Your task to perform on an android device: Search for Mexican restaurants on Maps Image 0: 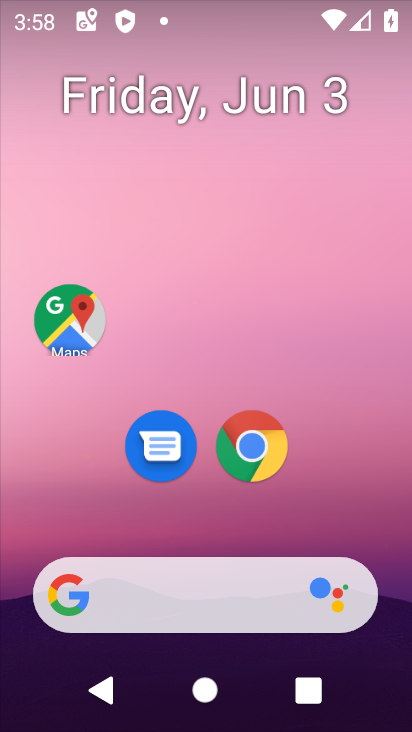
Step 0: click (58, 301)
Your task to perform on an android device: Search for Mexican restaurants on Maps Image 1: 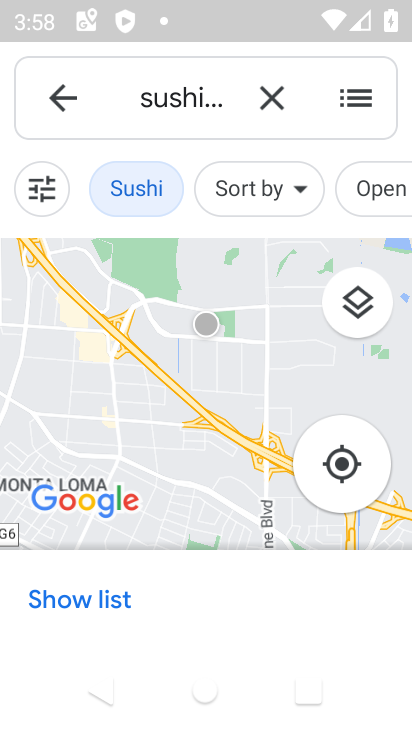
Step 1: click (260, 105)
Your task to perform on an android device: Search for Mexican restaurants on Maps Image 2: 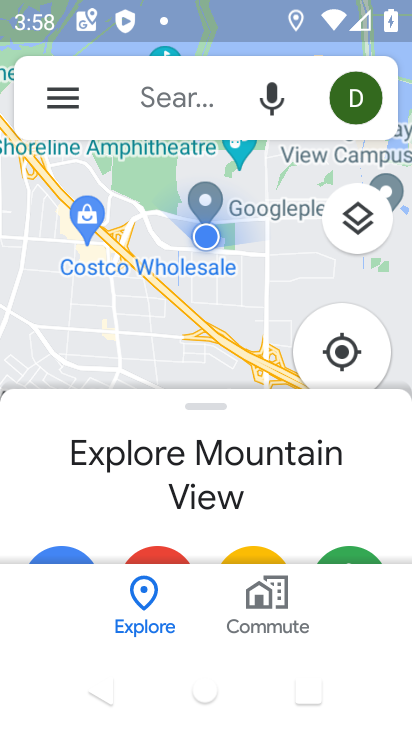
Step 2: click (197, 109)
Your task to perform on an android device: Search for Mexican restaurants on Maps Image 3: 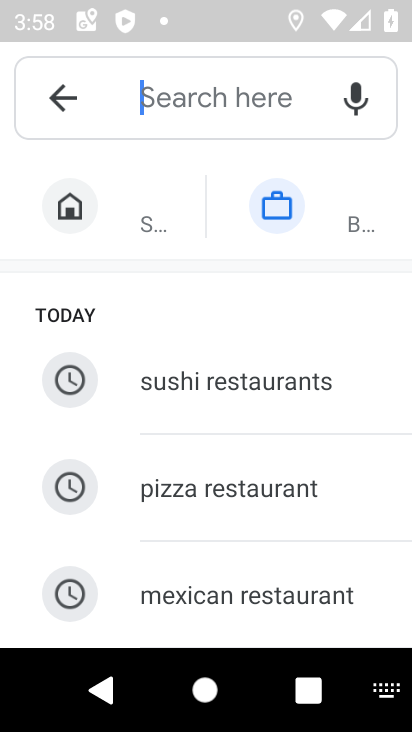
Step 3: click (259, 572)
Your task to perform on an android device: Search for Mexican restaurants on Maps Image 4: 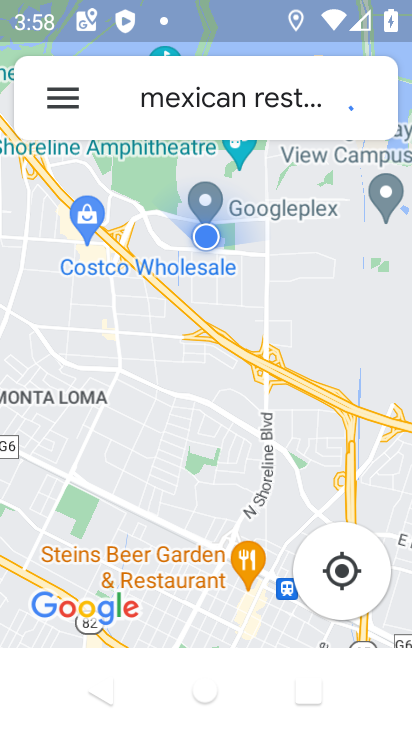
Step 4: task complete